Your task to perform on an android device: Open Google Maps and go to "Timeline" Image 0: 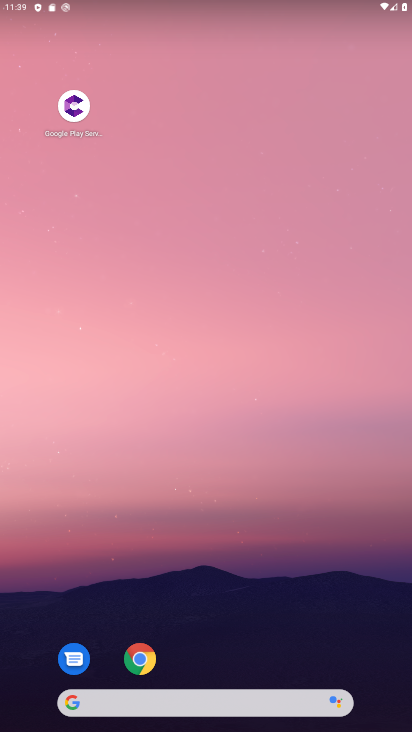
Step 0: drag from (287, 504) to (314, 186)
Your task to perform on an android device: Open Google Maps and go to "Timeline" Image 1: 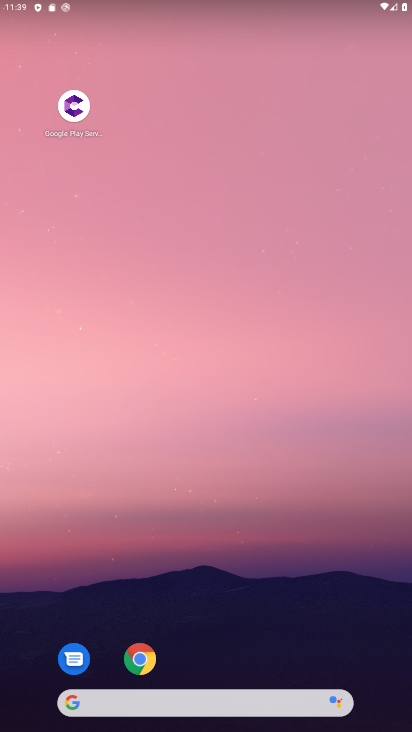
Step 1: drag from (219, 590) to (173, 284)
Your task to perform on an android device: Open Google Maps and go to "Timeline" Image 2: 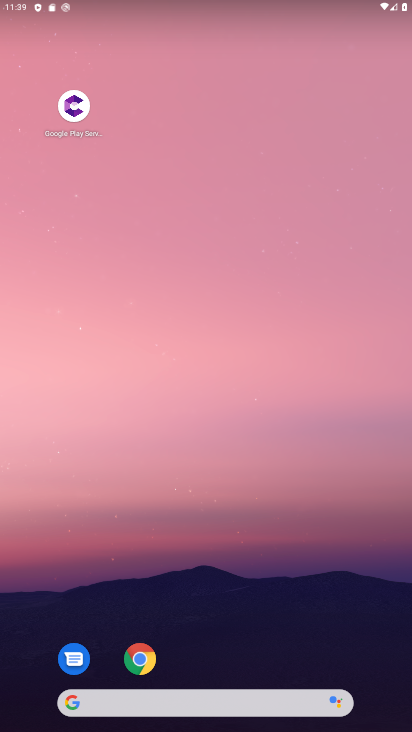
Step 2: drag from (278, 538) to (282, 203)
Your task to perform on an android device: Open Google Maps and go to "Timeline" Image 3: 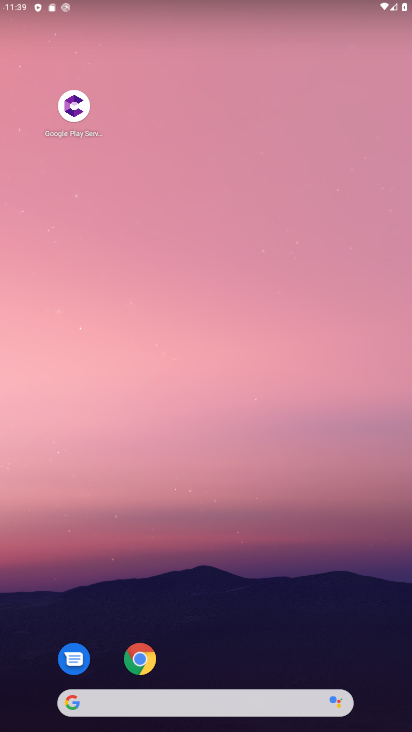
Step 3: drag from (245, 402) to (256, 84)
Your task to perform on an android device: Open Google Maps and go to "Timeline" Image 4: 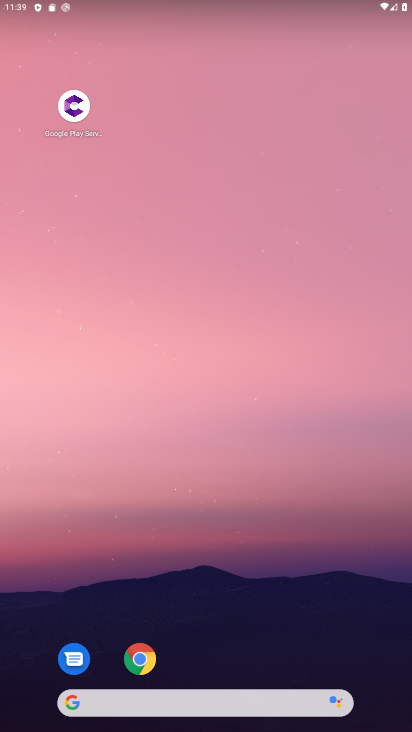
Step 4: drag from (235, 624) to (330, 102)
Your task to perform on an android device: Open Google Maps and go to "Timeline" Image 5: 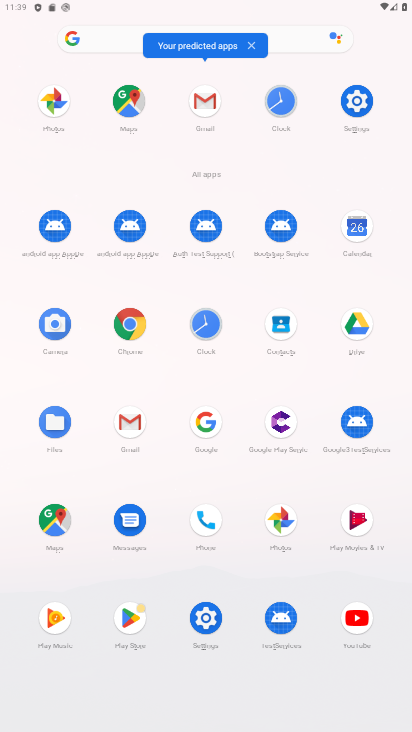
Step 5: click (125, 102)
Your task to perform on an android device: Open Google Maps and go to "Timeline" Image 6: 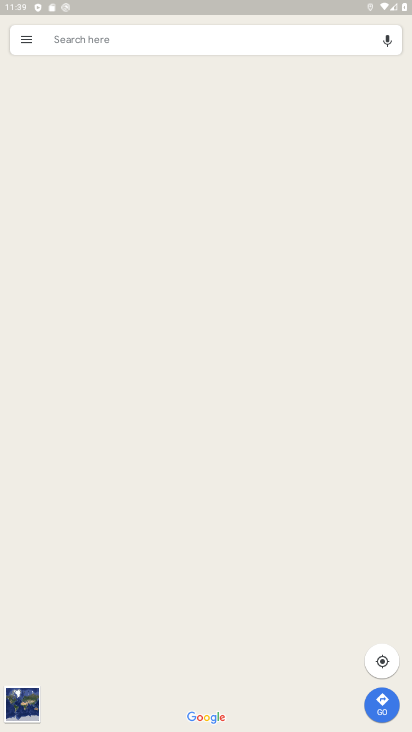
Step 6: click (30, 41)
Your task to perform on an android device: Open Google Maps and go to "Timeline" Image 7: 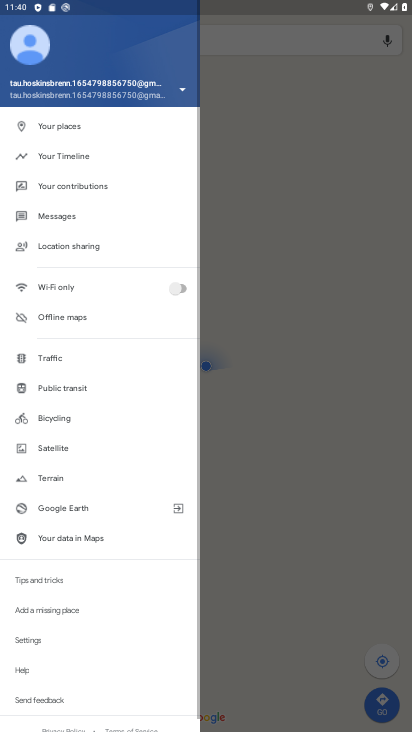
Step 7: click (74, 159)
Your task to perform on an android device: Open Google Maps and go to "Timeline" Image 8: 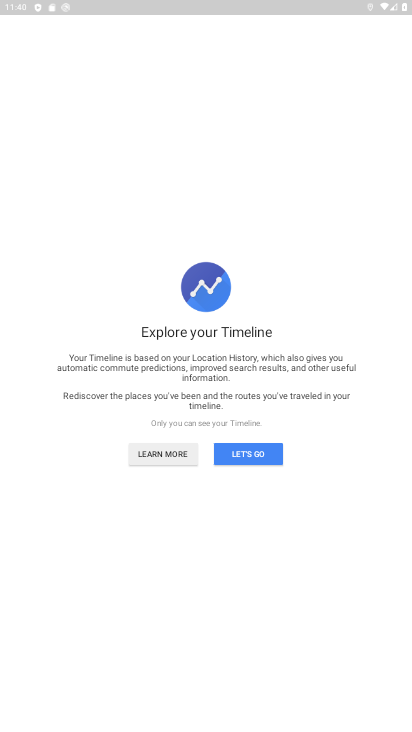
Step 8: click (234, 448)
Your task to perform on an android device: Open Google Maps and go to "Timeline" Image 9: 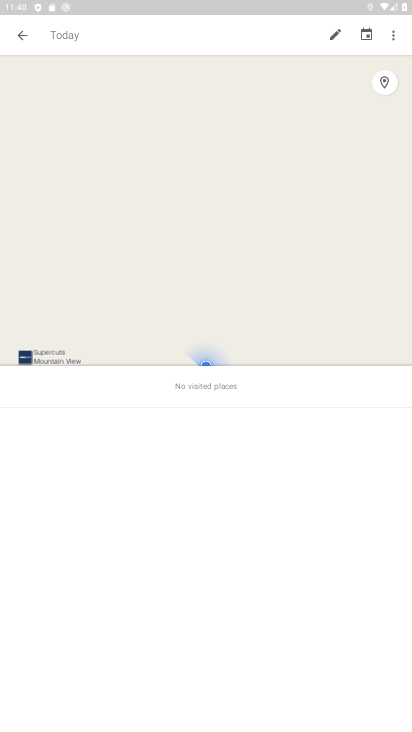
Step 9: task complete